Your task to perform on an android device: Open the web browser Image 0: 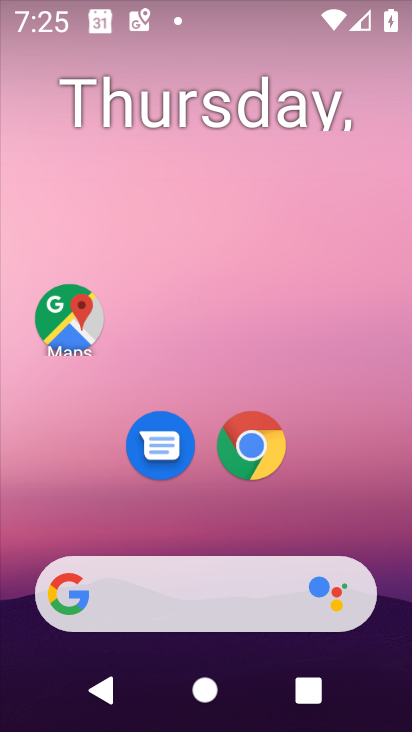
Step 0: drag from (387, 630) to (261, 103)
Your task to perform on an android device: Open the web browser Image 1: 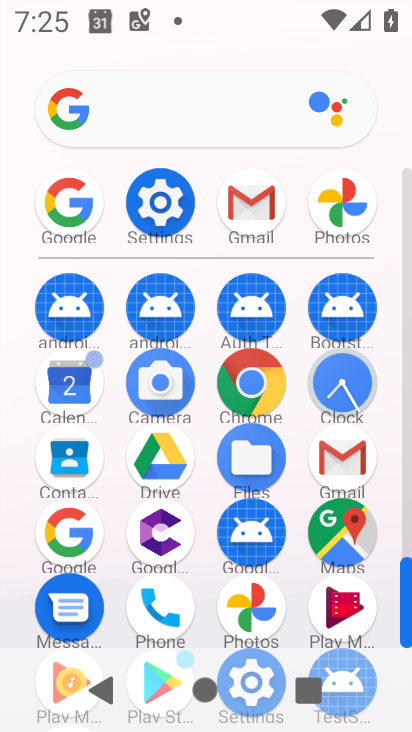
Step 1: click (79, 533)
Your task to perform on an android device: Open the web browser Image 2: 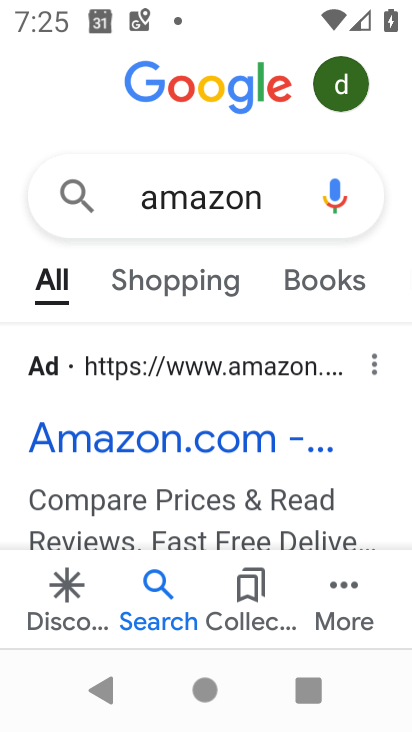
Step 2: press back button
Your task to perform on an android device: Open the web browser Image 3: 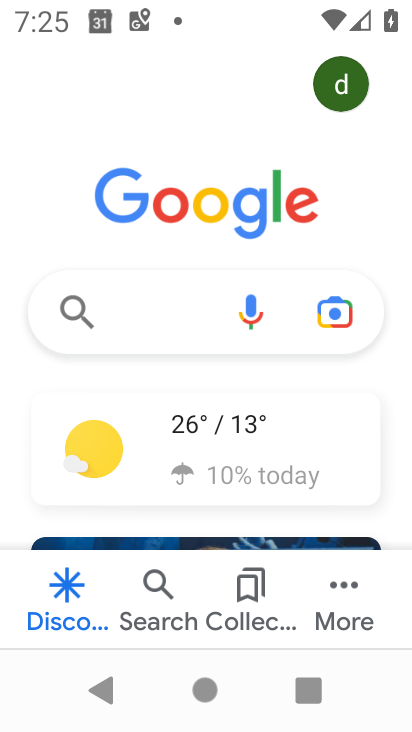
Step 3: click (101, 316)
Your task to perform on an android device: Open the web browser Image 4: 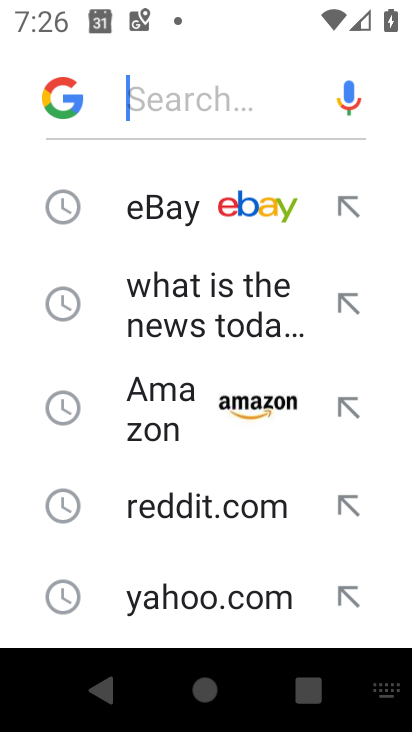
Step 4: type "web browser"
Your task to perform on an android device: Open the web browser Image 5: 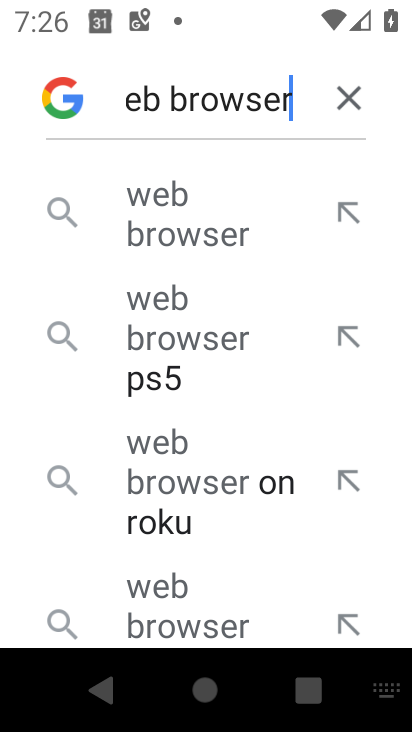
Step 5: click (204, 187)
Your task to perform on an android device: Open the web browser Image 6: 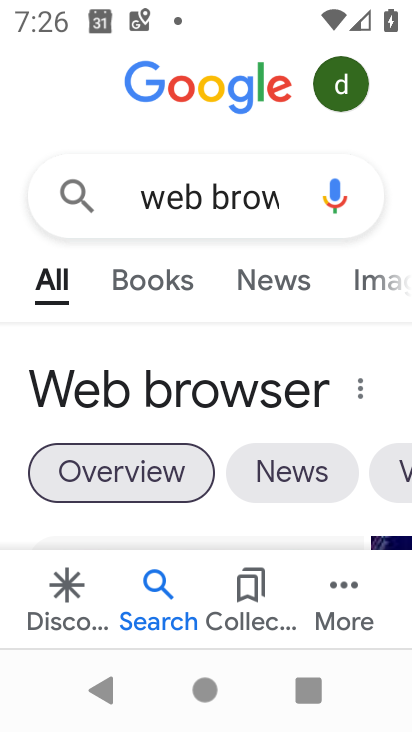
Step 6: task complete